Your task to perform on an android device: turn on showing notifications on the lock screen Image 0: 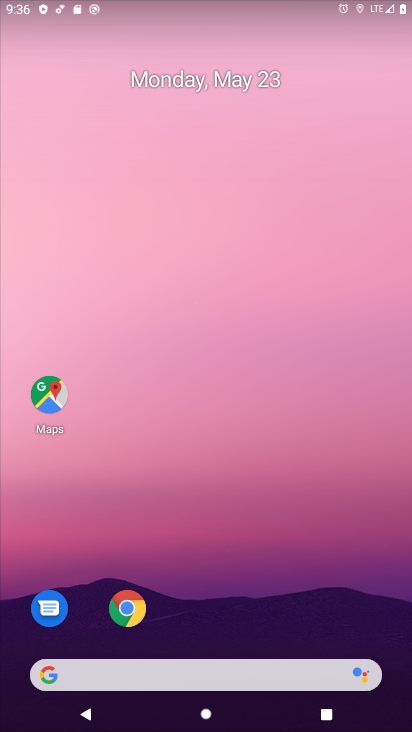
Step 0: drag from (219, 619) to (194, 180)
Your task to perform on an android device: turn on showing notifications on the lock screen Image 1: 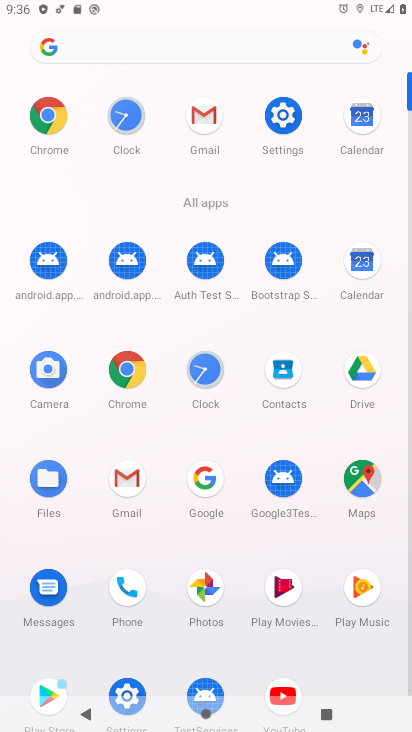
Step 1: click (277, 118)
Your task to perform on an android device: turn on showing notifications on the lock screen Image 2: 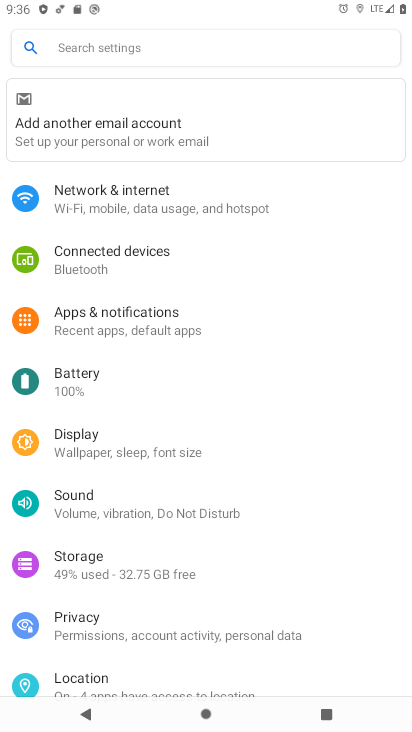
Step 2: click (232, 198)
Your task to perform on an android device: turn on showing notifications on the lock screen Image 3: 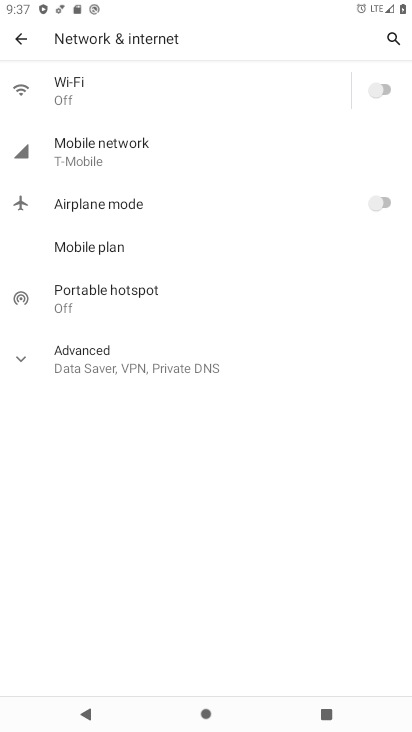
Step 3: click (16, 31)
Your task to perform on an android device: turn on showing notifications on the lock screen Image 4: 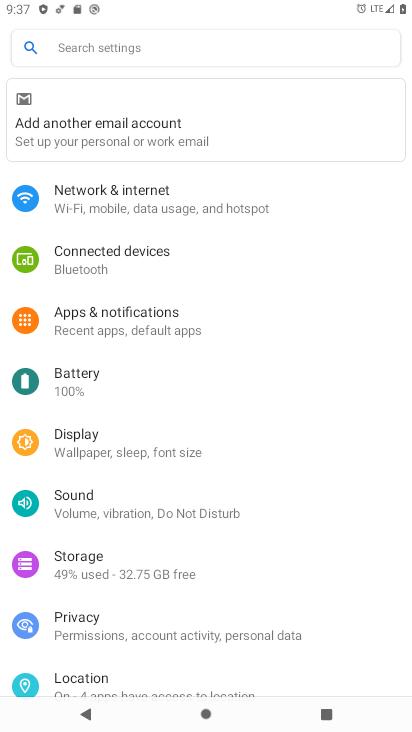
Step 4: click (130, 325)
Your task to perform on an android device: turn on showing notifications on the lock screen Image 5: 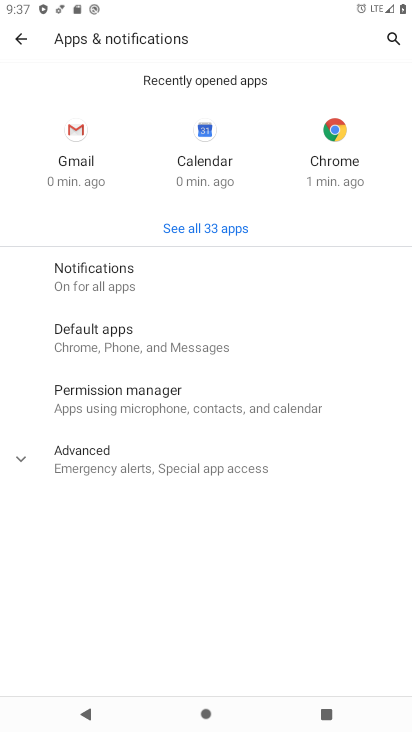
Step 5: click (147, 278)
Your task to perform on an android device: turn on showing notifications on the lock screen Image 6: 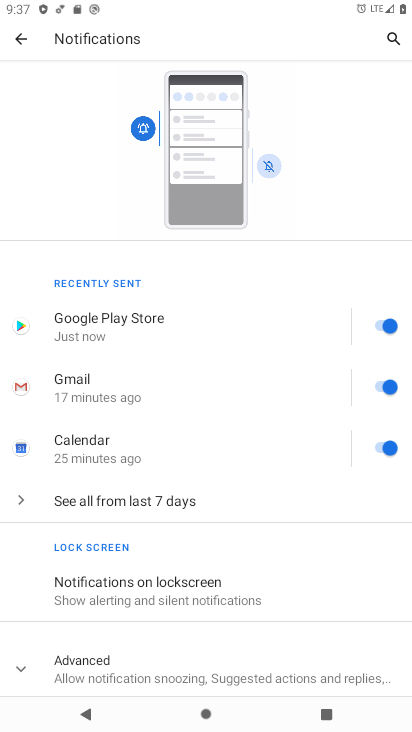
Step 6: click (214, 594)
Your task to perform on an android device: turn on showing notifications on the lock screen Image 7: 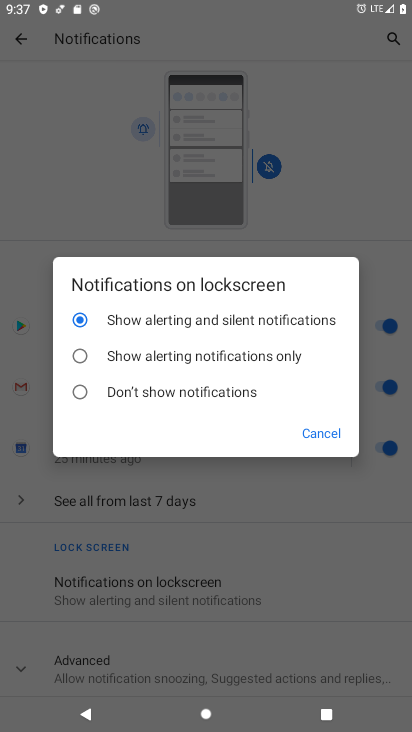
Step 7: task complete